Your task to perform on an android device: turn off translation in the chrome app Image 0: 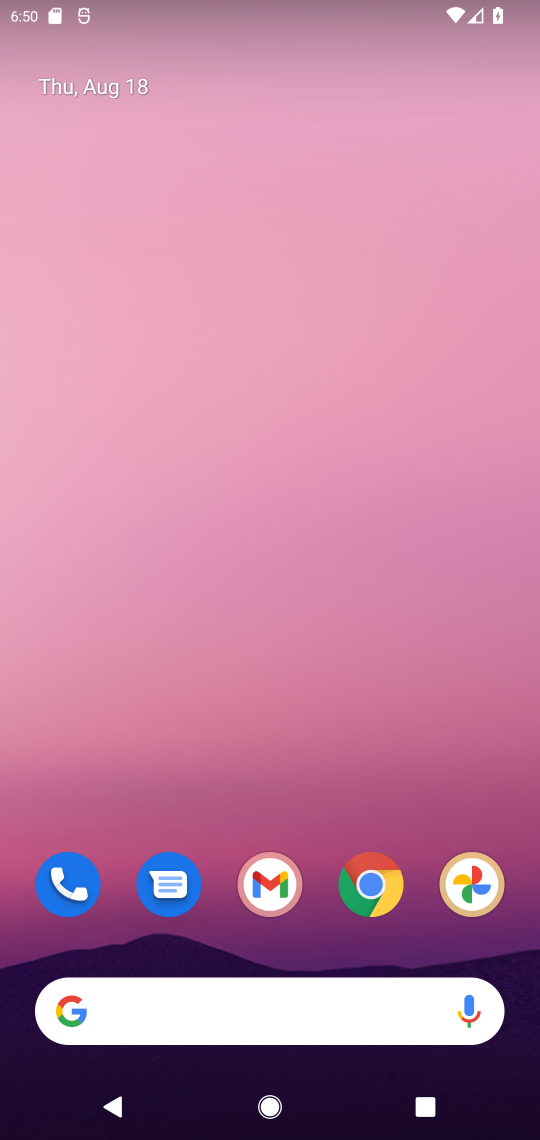
Step 0: click (388, 882)
Your task to perform on an android device: turn off translation in the chrome app Image 1: 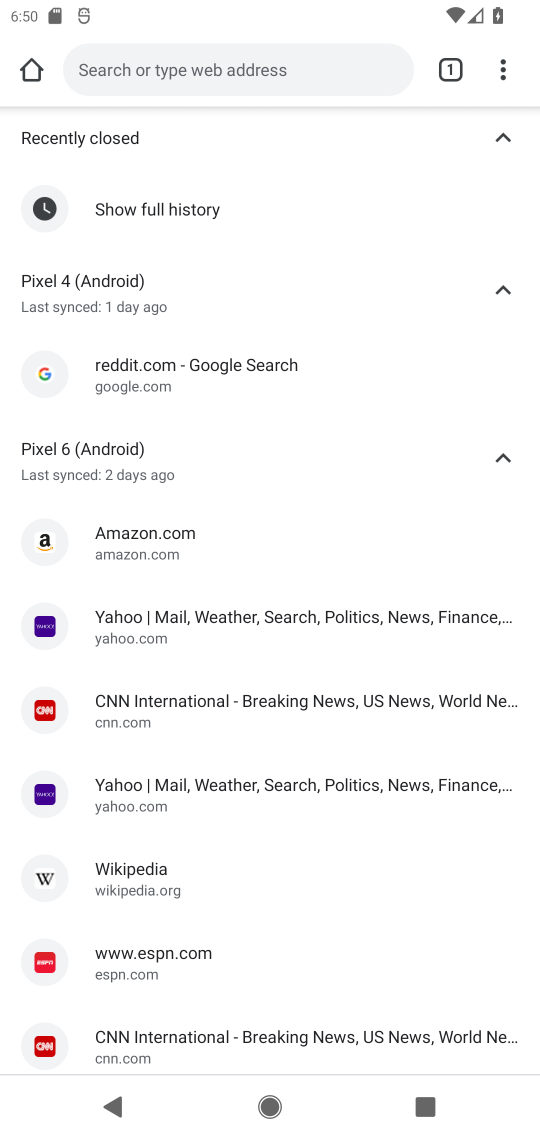
Step 1: click (35, 67)
Your task to perform on an android device: turn off translation in the chrome app Image 2: 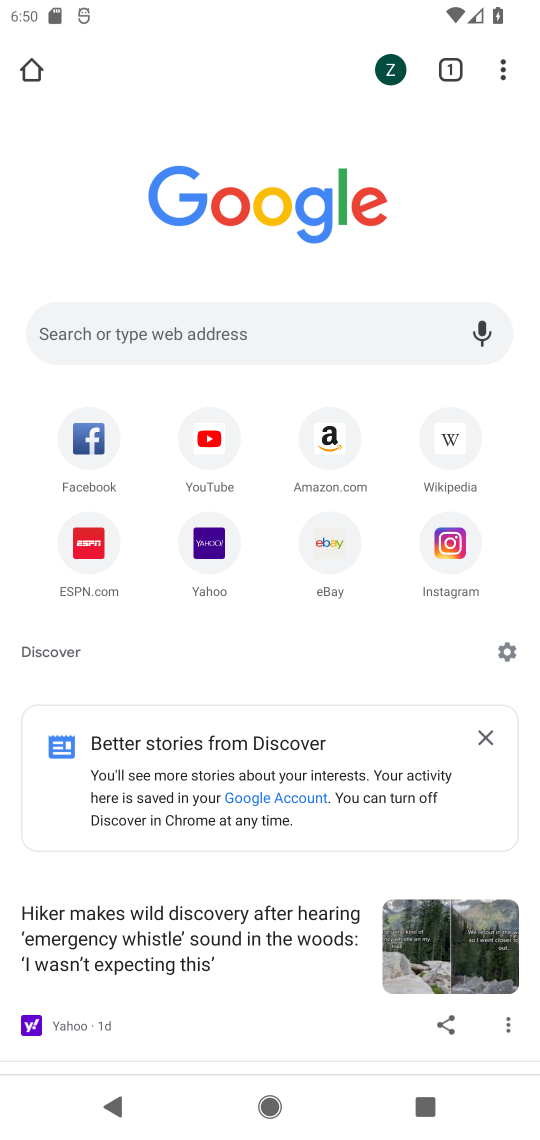
Step 2: click (516, 58)
Your task to perform on an android device: turn off translation in the chrome app Image 3: 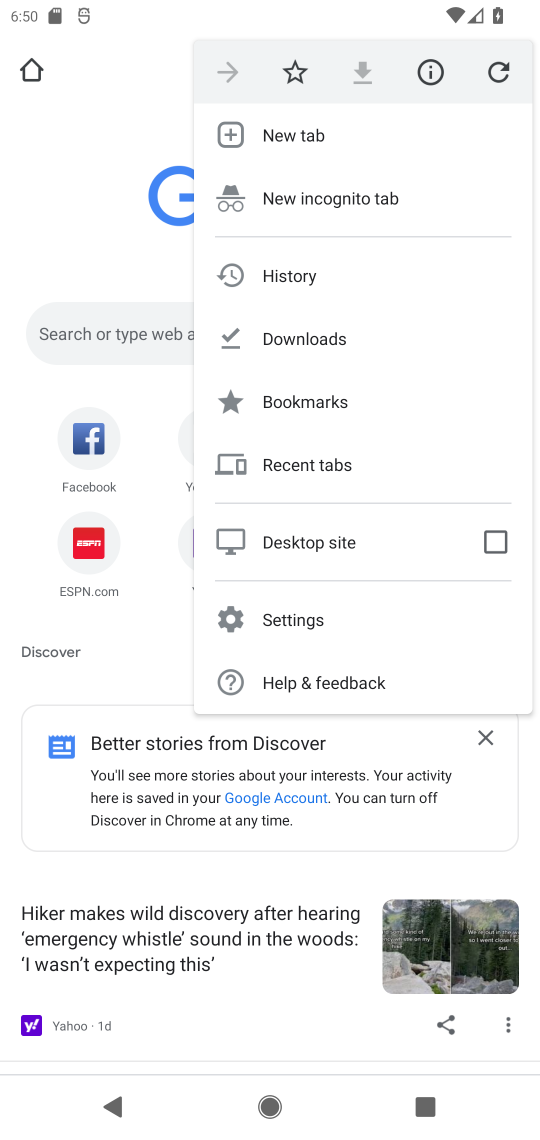
Step 3: click (337, 627)
Your task to perform on an android device: turn off translation in the chrome app Image 4: 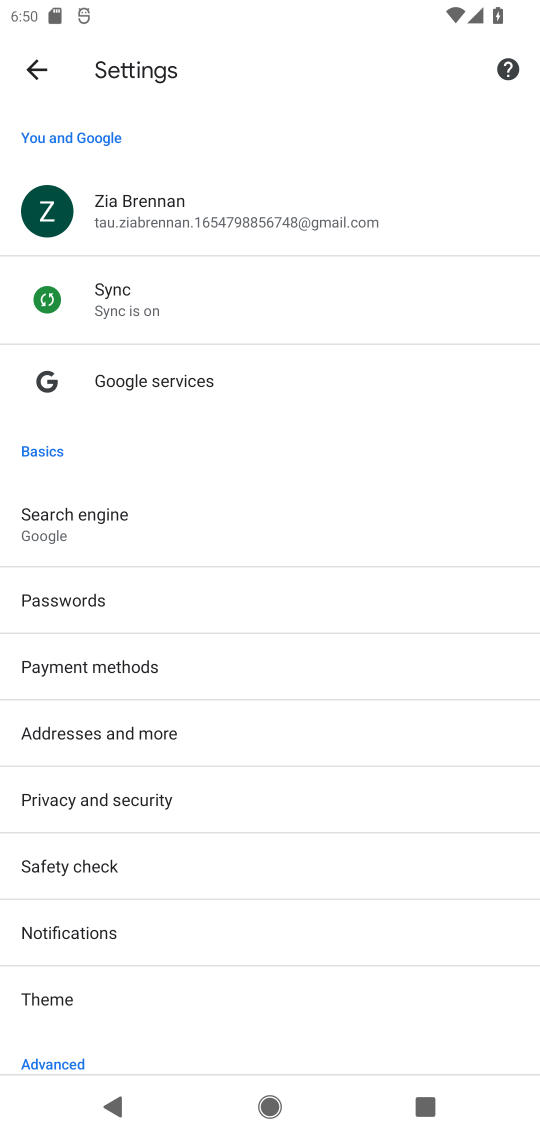
Step 4: drag from (99, 1009) to (101, 257)
Your task to perform on an android device: turn off translation in the chrome app Image 5: 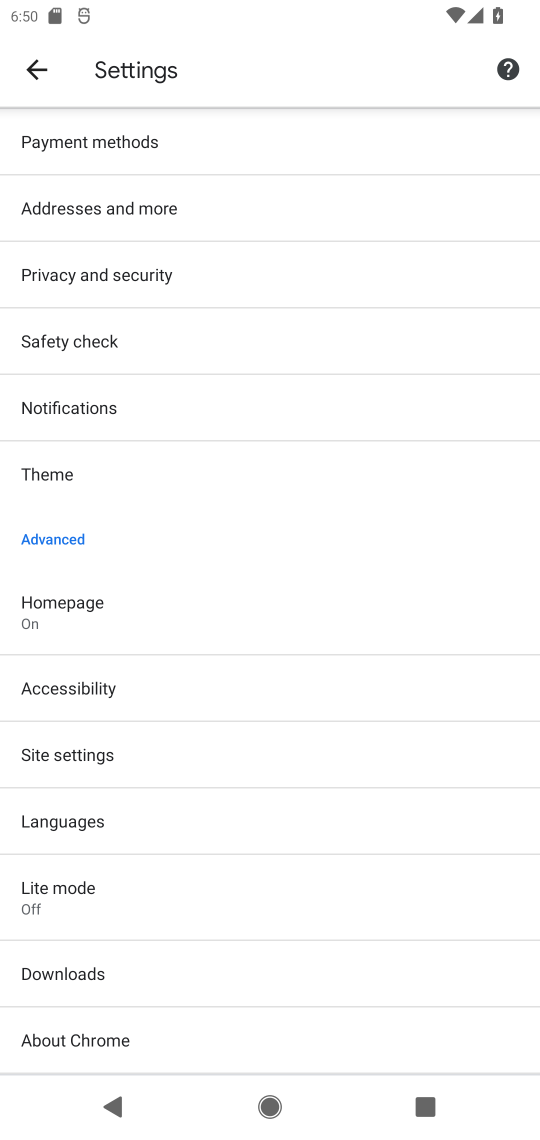
Step 5: click (167, 817)
Your task to perform on an android device: turn off translation in the chrome app Image 6: 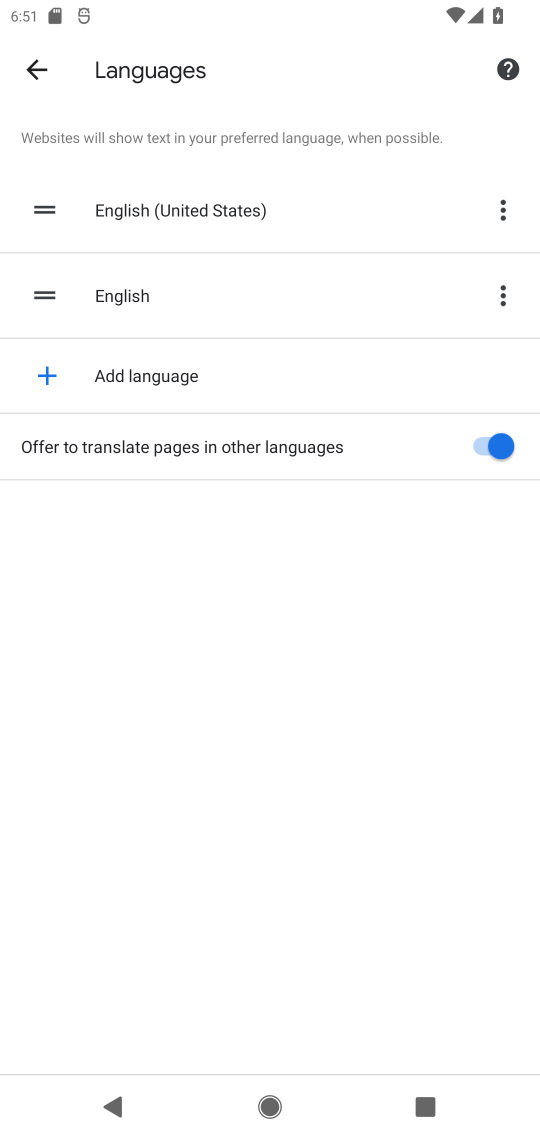
Step 6: click (484, 431)
Your task to perform on an android device: turn off translation in the chrome app Image 7: 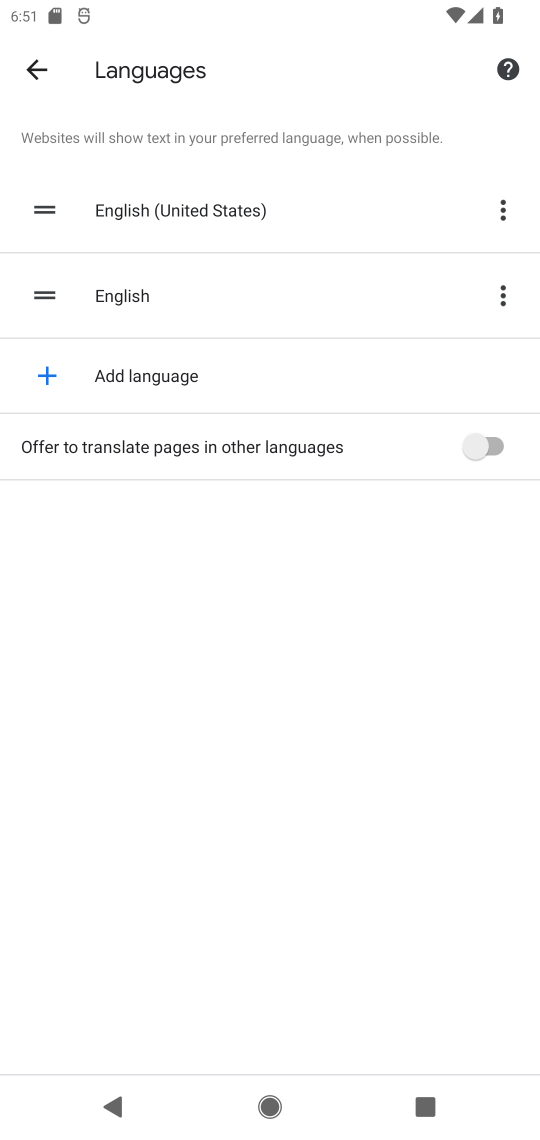
Step 7: task complete